Your task to perform on an android device: turn notification dots off Image 0: 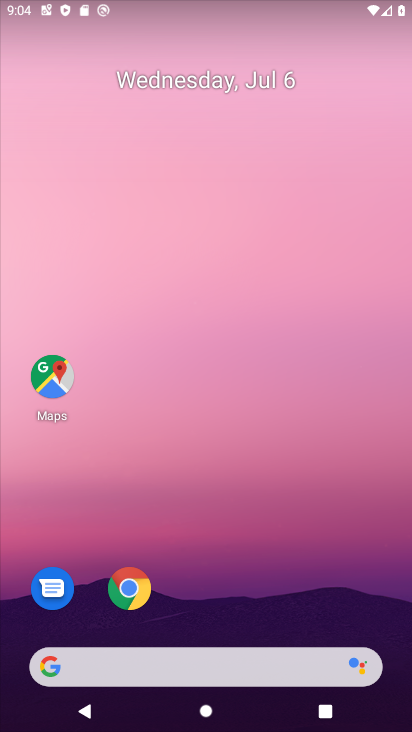
Step 0: drag from (192, 665) to (315, 36)
Your task to perform on an android device: turn notification dots off Image 1: 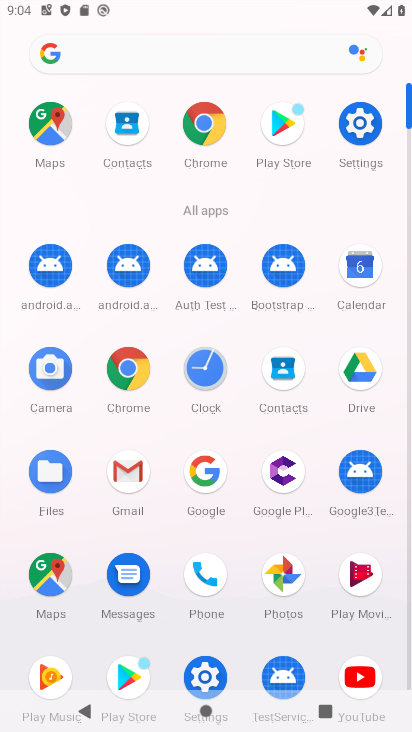
Step 1: click (356, 125)
Your task to perform on an android device: turn notification dots off Image 2: 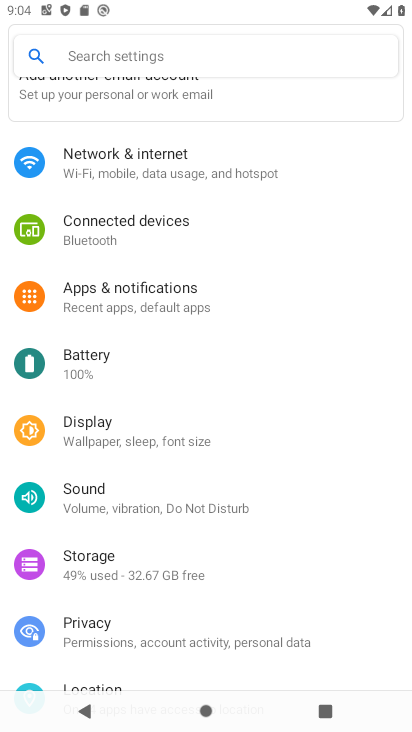
Step 2: click (176, 287)
Your task to perform on an android device: turn notification dots off Image 3: 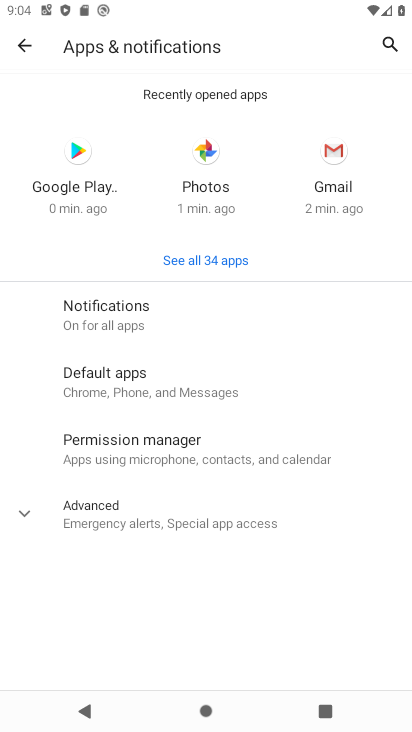
Step 3: click (124, 305)
Your task to perform on an android device: turn notification dots off Image 4: 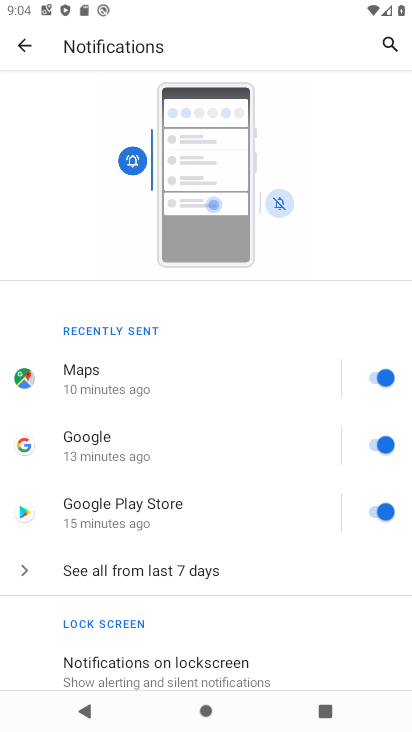
Step 4: drag from (246, 628) to (269, 396)
Your task to perform on an android device: turn notification dots off Image 5: 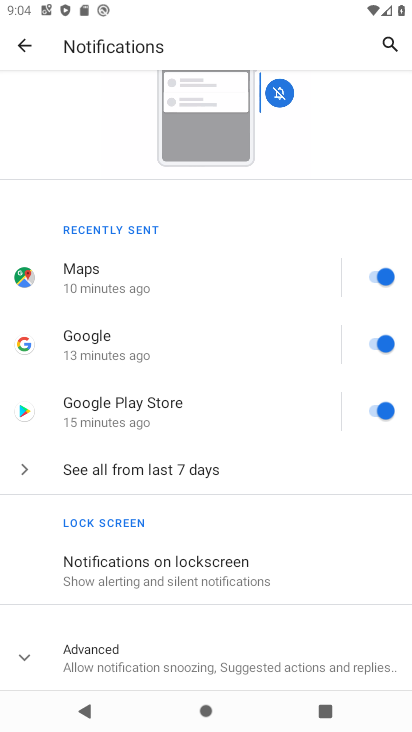
Step 5: click (158, 661)
Your task to perform on an android device: turn notification dots off Image 6: 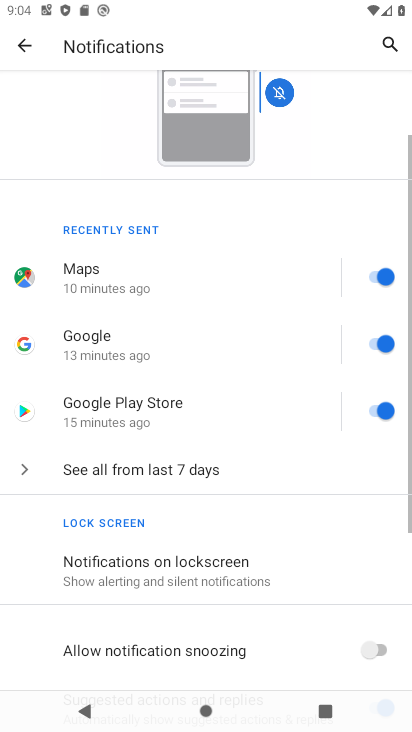
Step 6: drag from (240, 595) to (285, 254)
Your task to perform on an android device: turn notification dots off Image 7: 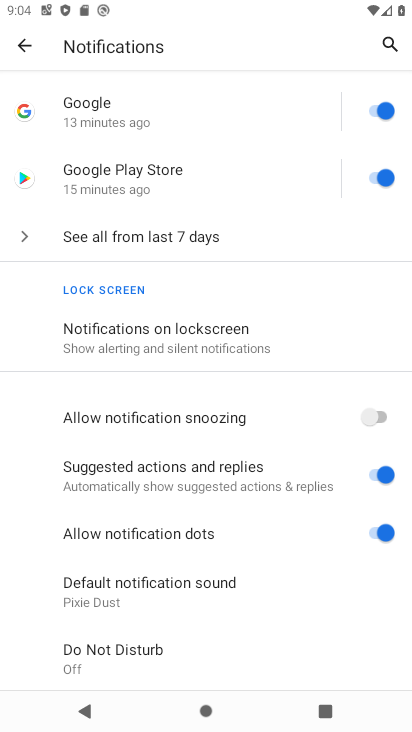
Step 7: click (372, 530)
Your task to perform on an android device: turn notification dots off Image 8: 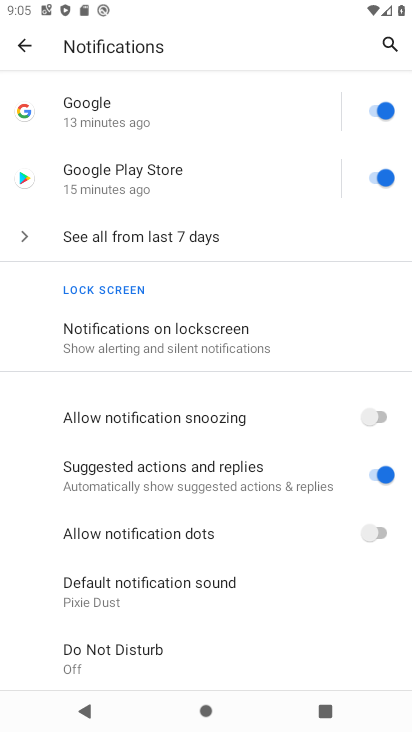
Step 8: task complete